Your task to perform on an android device: Open settings on Google Maps Image 0: 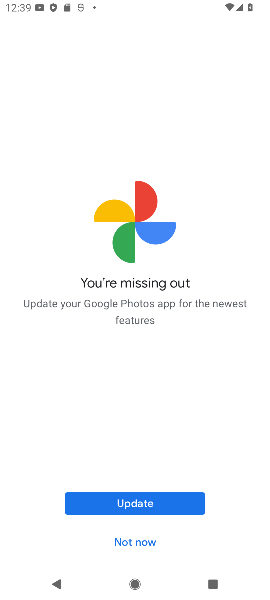
Step 0: press home button
Your task to perform on an android device: Open settings on Google Maps Image 1: 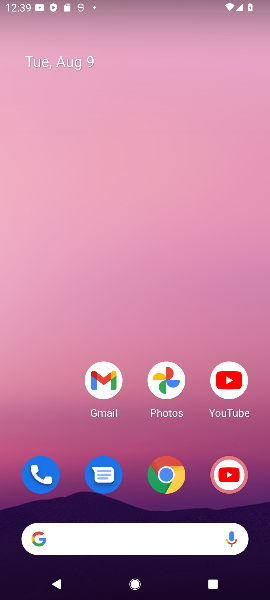
Step 1: drag from (75, 447) to (106, 100)
Your task to perform on an android device: Open settings on Google Maps Image 2: 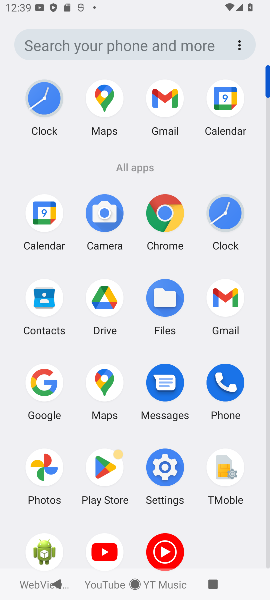
Step 2: click (94, 387)
Your task to perform on an android device: Open settings on Google Maps Image 3: 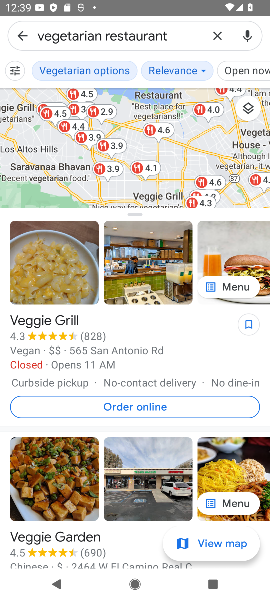
Step 3: click (25, 38)
Your task to perform on an android device: Open settings on Google Maps Image 4: 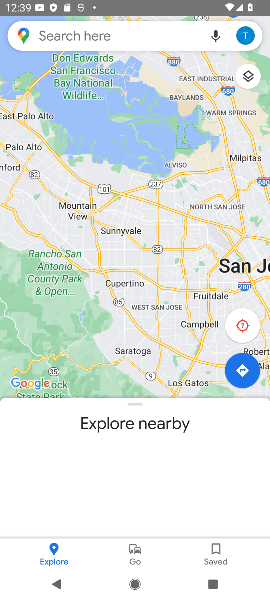
Step 4: click (25, 38)
Your task to perform on an android device: Open settings on Google Maps Image 5: 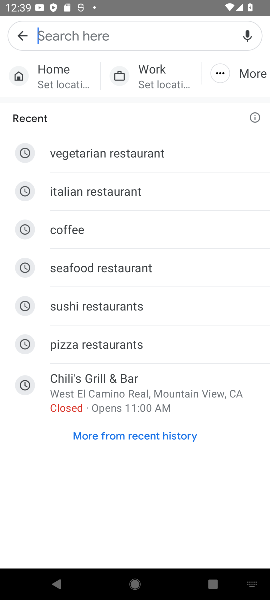
Step 5: press back button
Your task to perform on an android device: Open settings on Google Maps Image 6: 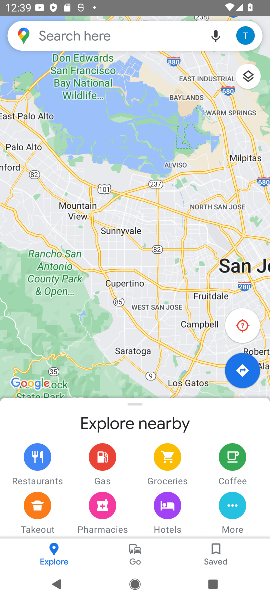
Step 6: click (248, 31)
Your task to perform on an android device: Open settings on Google Maps Image 7: 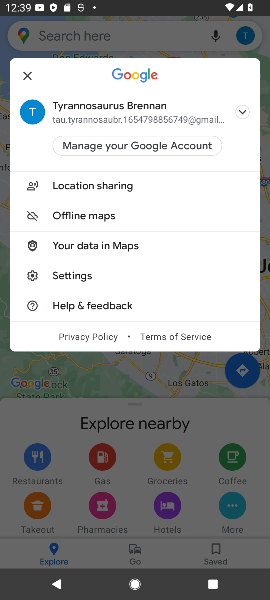
Step 7: click (92, 279)
Your task to perform on an android device: Open settings on Google Maps Image 8: 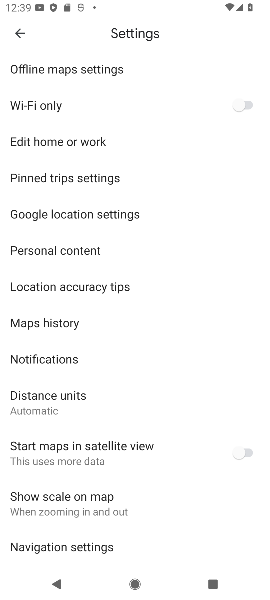
Step 8: task complete